Your task to perform on an android device: Open settings on Google Maps Image 0: 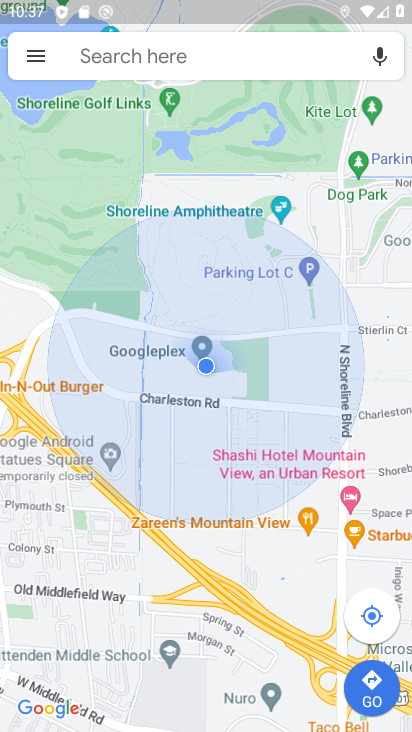
Step 0: press home button
Your task to perform on an android device: Open settings on Google Maps Image 1: 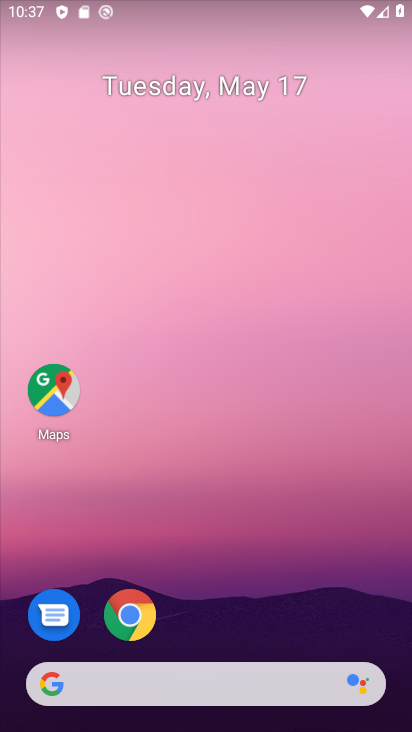
Step 1: click (47, 390)
Your task to perform on an android device: Open settings on Google Maps Image 2: 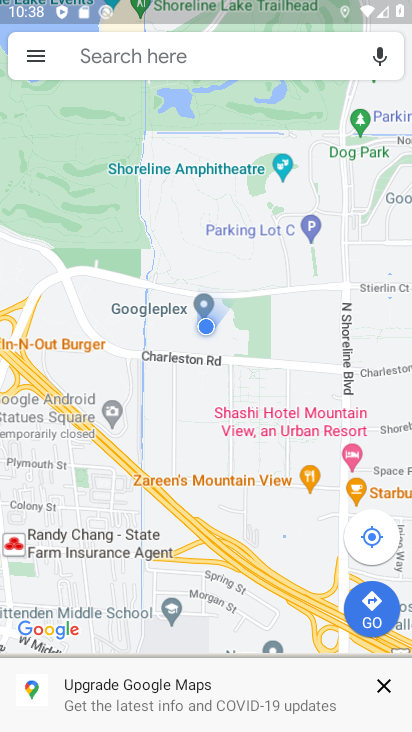
Step 2: click (33, 53)
Your task to perform on an android device: Open settings on Google Maps Image 3: 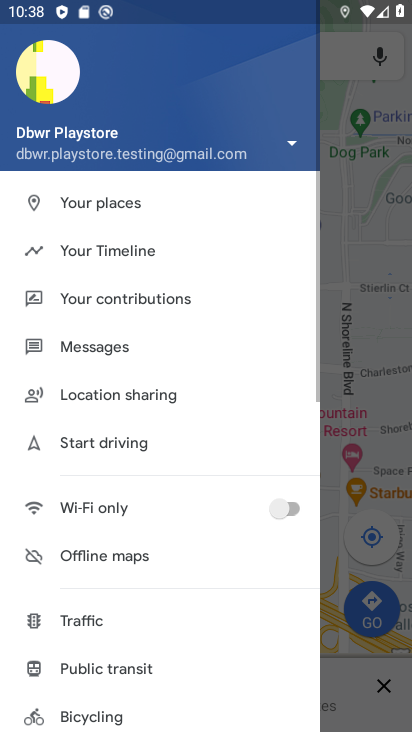
Step 3: drag from (157, 580) to (196, 256)
Your task to perform on an android device: Open settings on Google Maps Image 4: 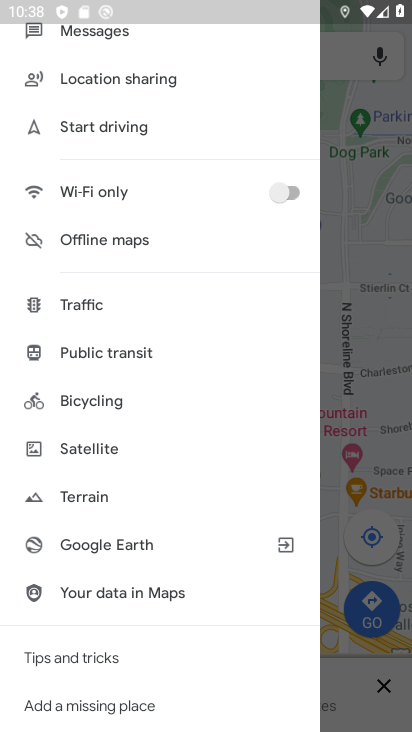
Step 4: drag from (115, 612) to (150, 202)
Your task to perform on an android device: Open settings on Google Maps Image 5: 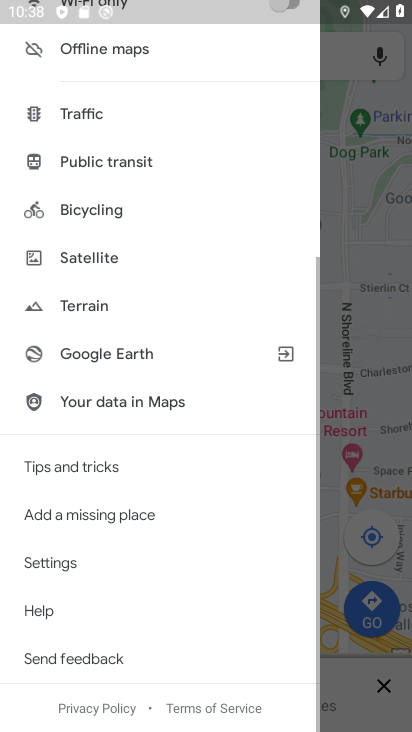
Step 5: click (38, 563)
Your task to perform on an android device: Open settings on Google Maps Image 6: 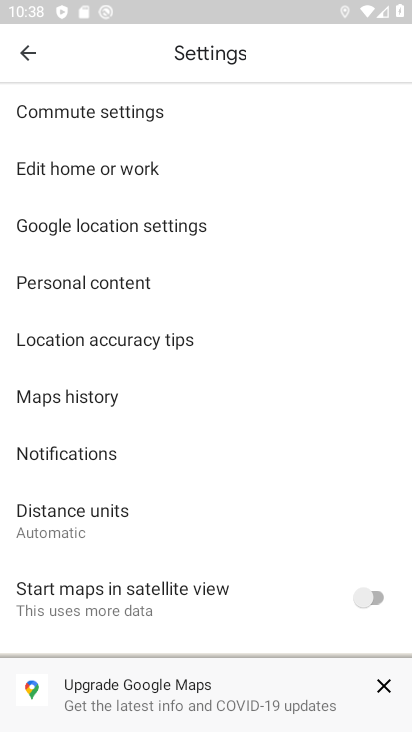
Step 6: task complete